Your task to perform on an android device: turn off sleep mode Image 0: 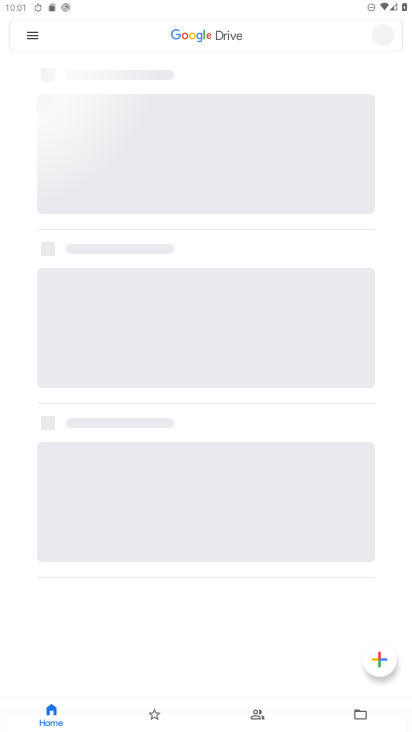
Step 0: click (206, 702)
Your task to perform on an android device: turn off sleep mode Image 1: 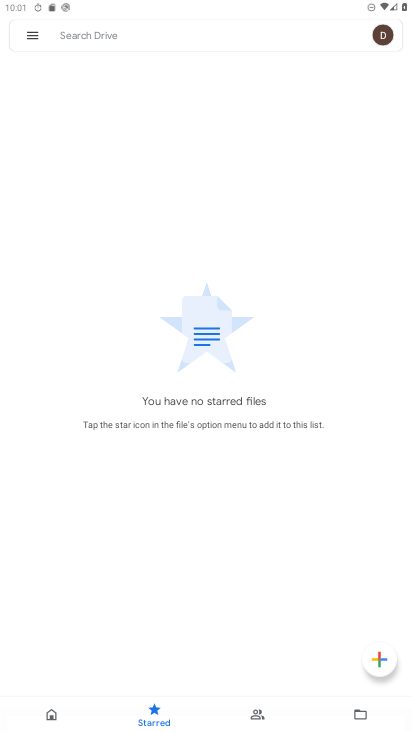
Step 1: press home button
Your task to perform on an android device: turn off sleep mode Image 2: 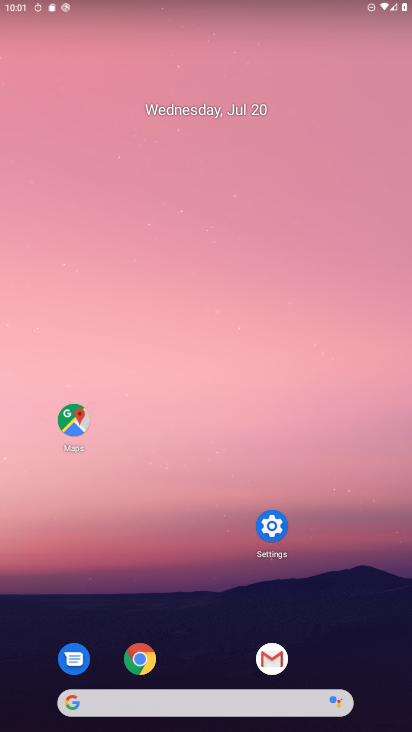
Step 2: click (280, 530)
Your task to perform on an android device: turn off sleep mode Image 3: 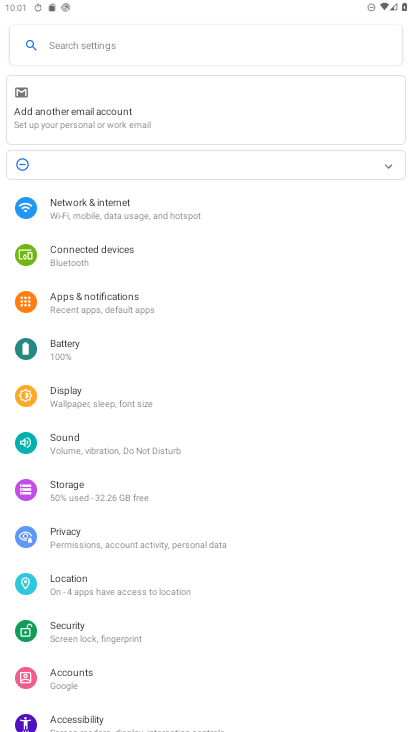
Step 3: click (104, 46)
Your task to perform on an android device: turn off sleep mode Image 4: 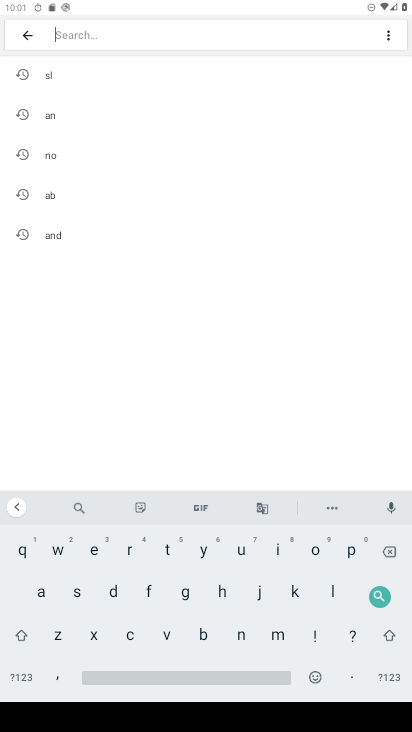
Step 4: click (73, 590)
Your task to perform on an android device: turn off sleep mode Image 5: 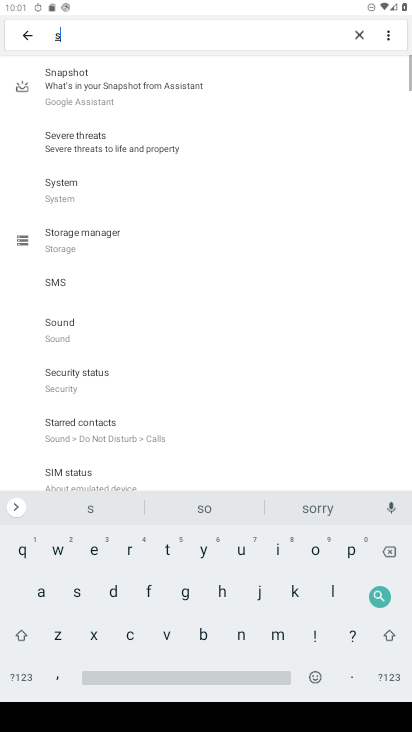
Step 5: click (320, 594)
Your task to perform on an android device: turn off sleep mode Image 6: 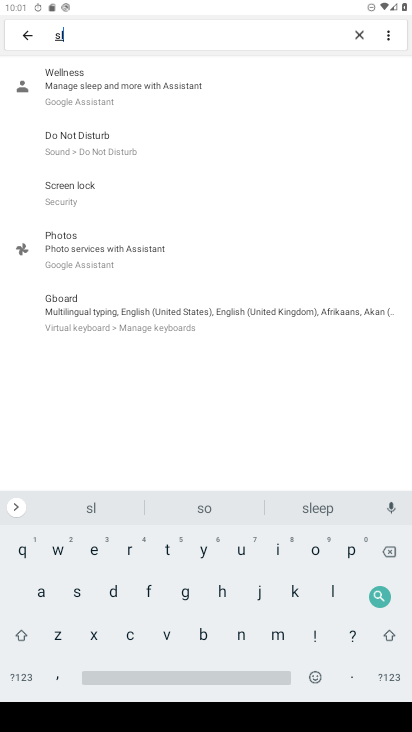
Step 6: click (93, 139)
Your task to perform on an android device: turn off sleep mode Image 7: 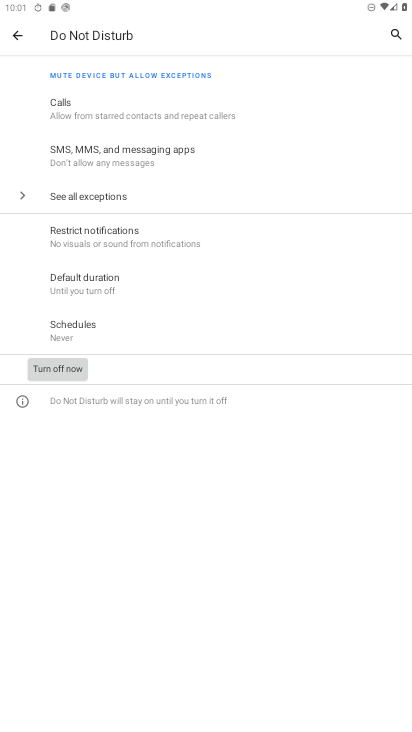
Step 7: task complete